Your task to perform on an android device: set an alarm Image 0: 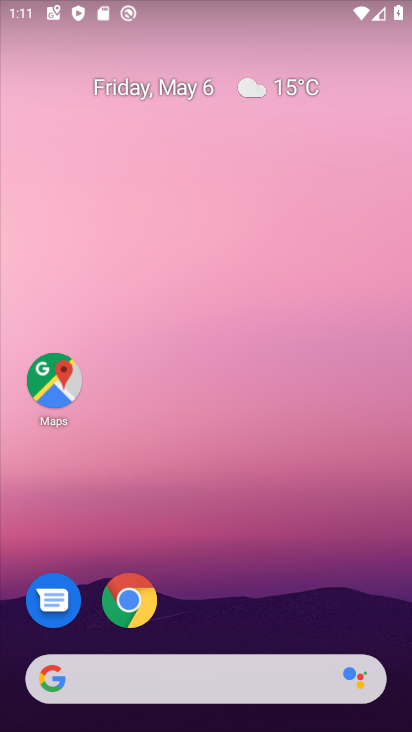
Step 0: drag from (280, 622) to (342, 69)
Your task to perform on an android device: set an alarm Image 1: 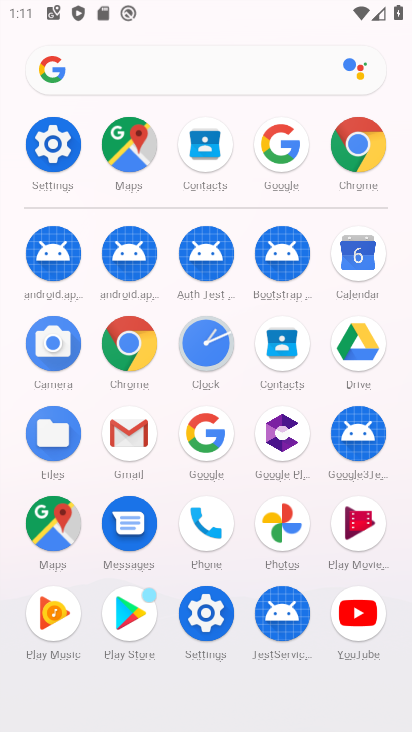
Step 1: click (194, 356)
Your task to perform on an android device: set an alarm Image 2: 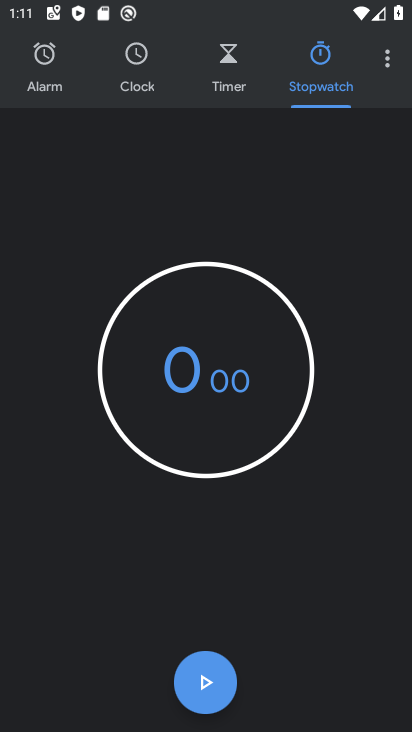
Step 2: click (46, 68)
Your task to perform on an android device: set an alarm Image 3: 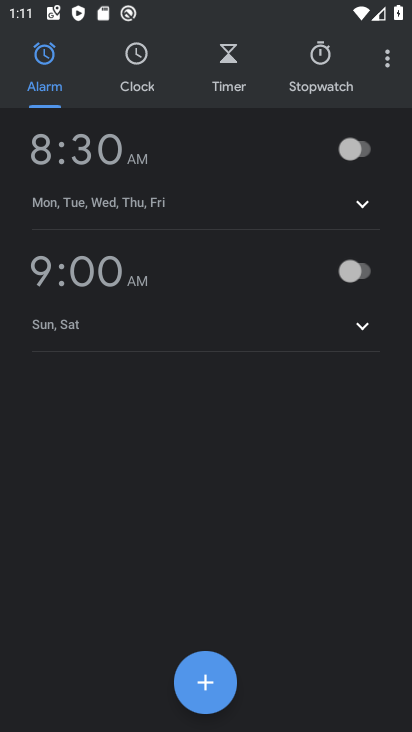
Step 3: task complete